Your task to perform on an android device: change the clock display to show seconds Image 0: 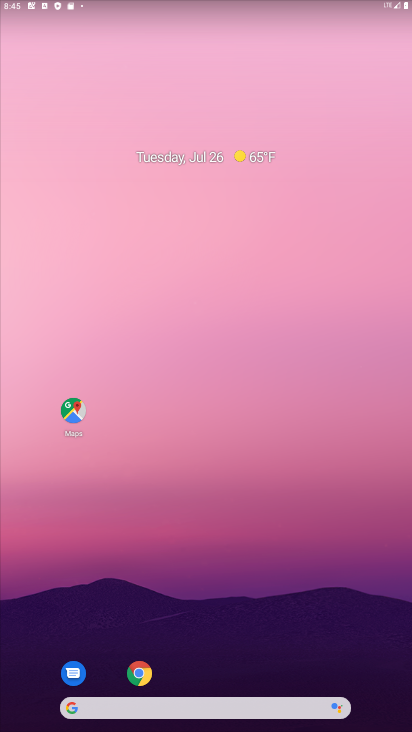
Step 0: drag from (208, 670) to (229, 168)
Your task to perform on an android device: change the clock display to show seconds Image 1: 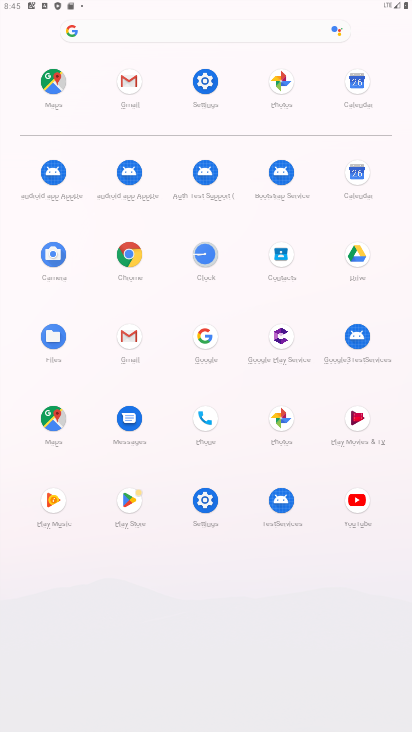
Step 1: click (205, 256)
Your task to perform on an android device: change the clock display to show seconds Image 2: 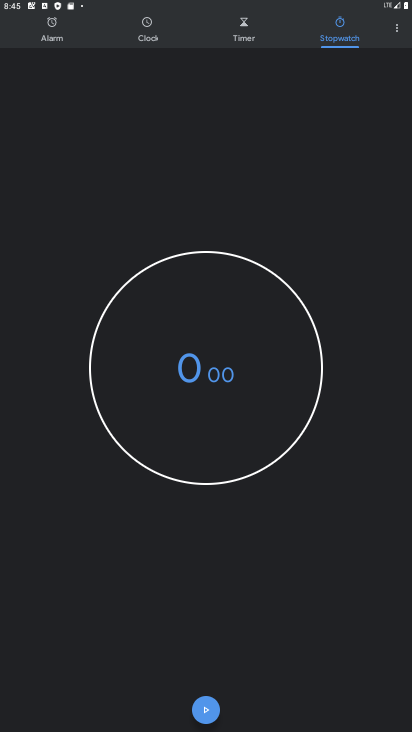
Step 2: click (390, 30)
Your task to perform on an android device: change the clock display to show seconds Image 3: 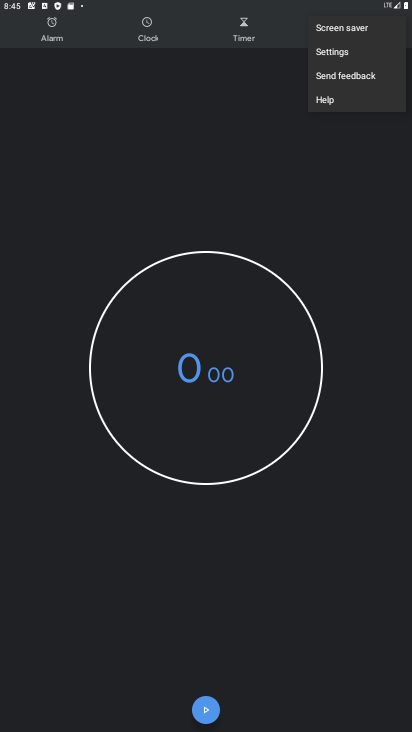
Step 3: click (347, 57)
Your task to perform on an android device: change the clock display to show seconds Image 4: 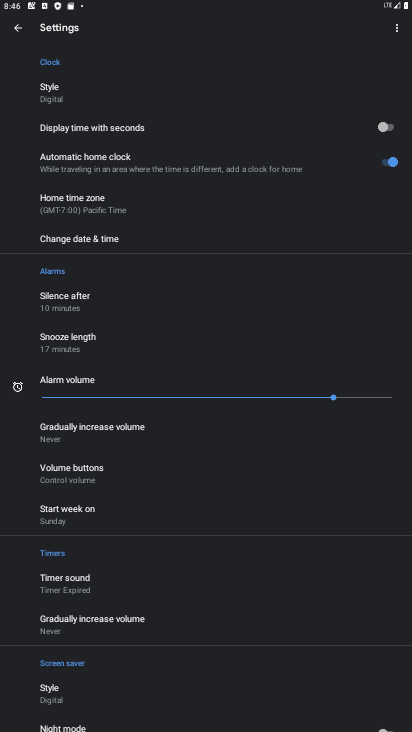
Step 4: click (387, 128)
Your task to perform on an android device: change the clock display to show seconds Image 5: 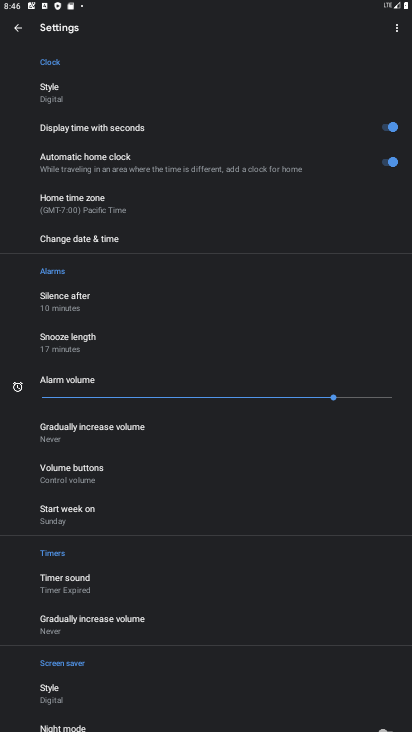
Step 5: task complete